Your task to perform on an android device: remove spam from my inbox in the gmail app Image 0: 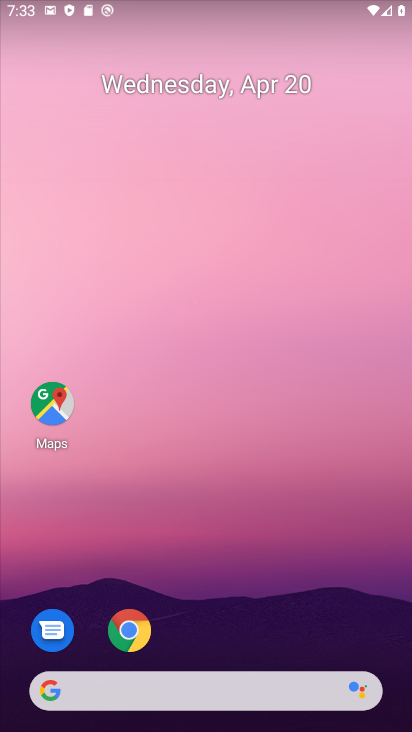
Step 0: drag from (250, 625) to (250, 263)
Your task to perform on an android device: remove spam from my inbox in the gmail app Image 1: 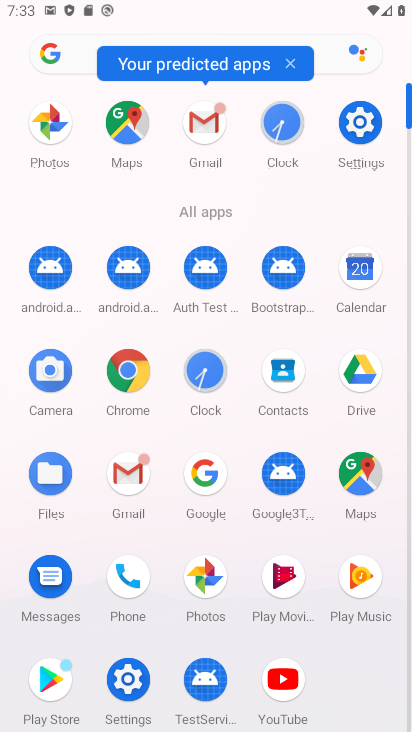
Step 1: click (132, 489)
Your task to perform on an android device: remove spam from my inbox in the gmail app Image 2: 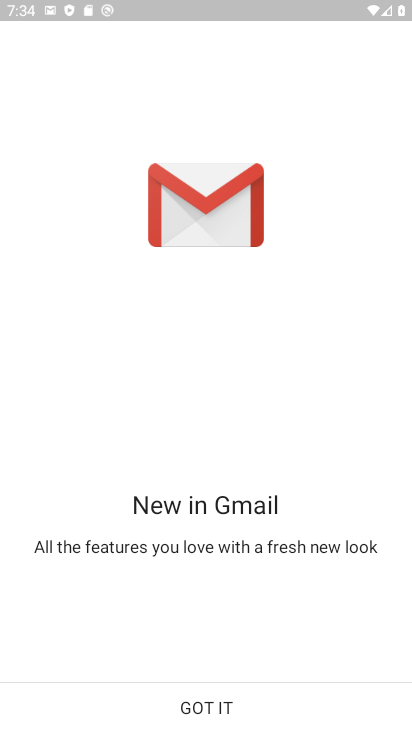
Step 2: click (282, 693)
Your task to perform on an android device: remove spam from my inbox in the gmail app Image 3: 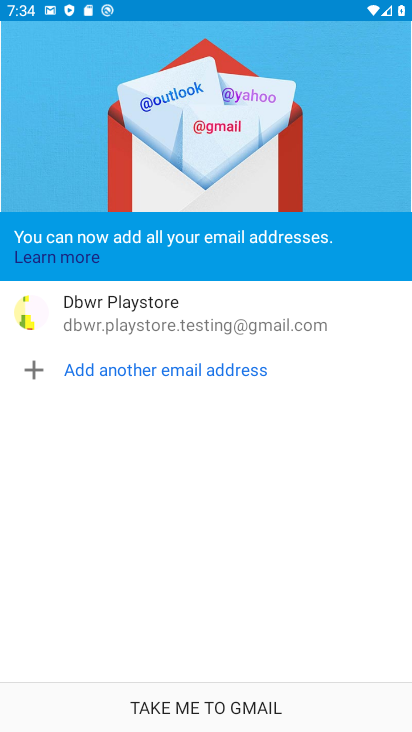
Step 3: click (373, 711)
Your task to perform on an android device: remove spam from my inbox in the gmail app Image 4: 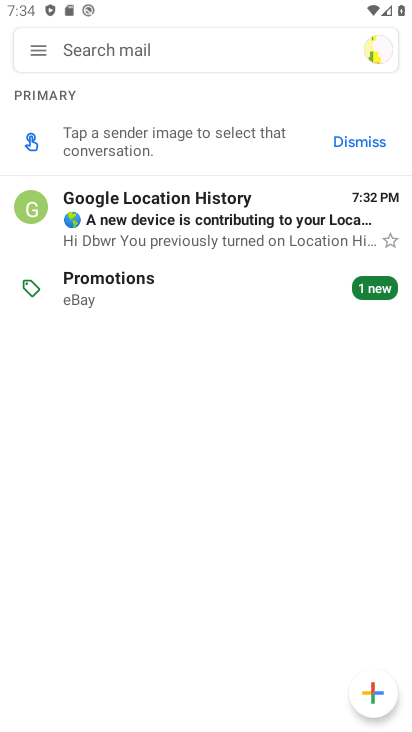
Step 4: click (37, 54)
Your task to perform on an android device: remove spam from my inbox in the gmail app Image 5: 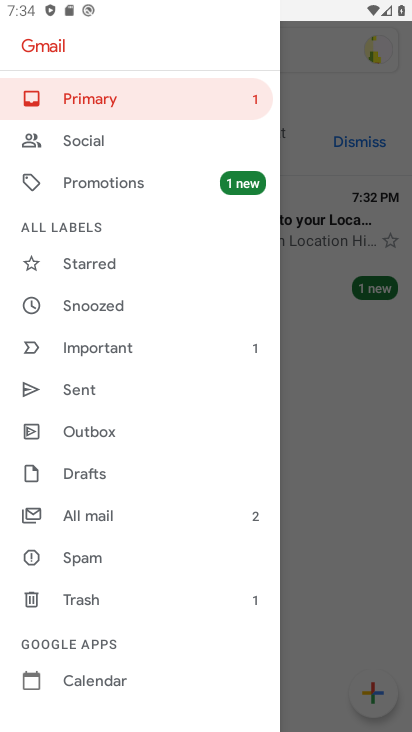
Step 5: click (106, 559)
Your task to perform on an android device: remove spam from my inbox in the gmail app Image 6: 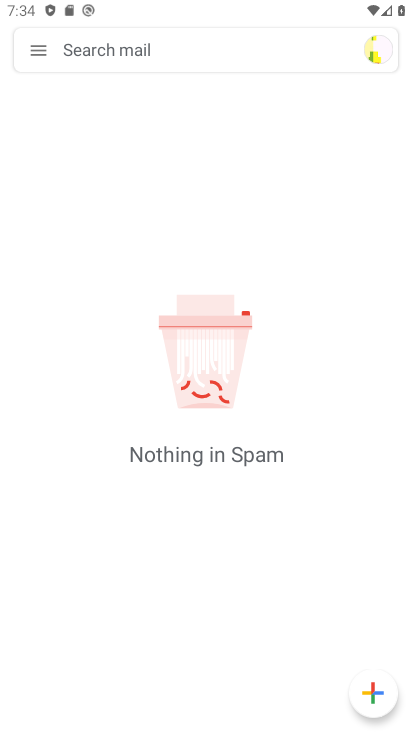
Step 6: task complete